Your task to perform on an android device: open a new tab in the chrome app Image 0: 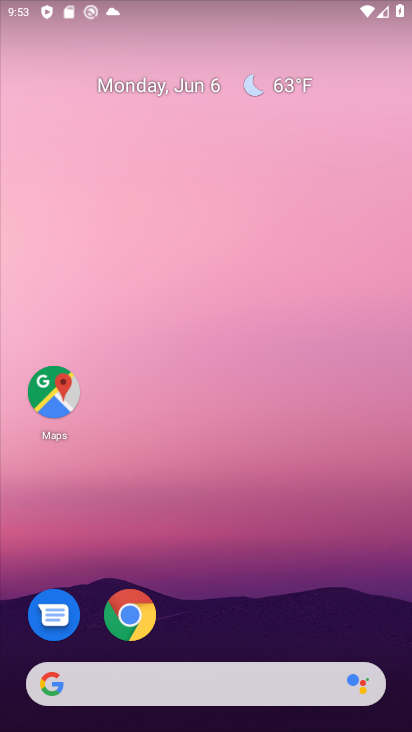
Step 0: click (129, 609)
Your task to perform on an android device: open a new tab in the chrome app Image 1: 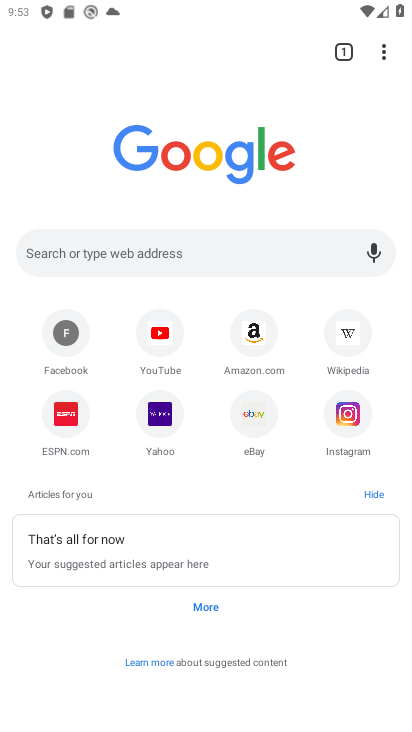
Step 1: click (381, 46)
Your task to perform on an android device: open a new tab in the chrome app Image 2: 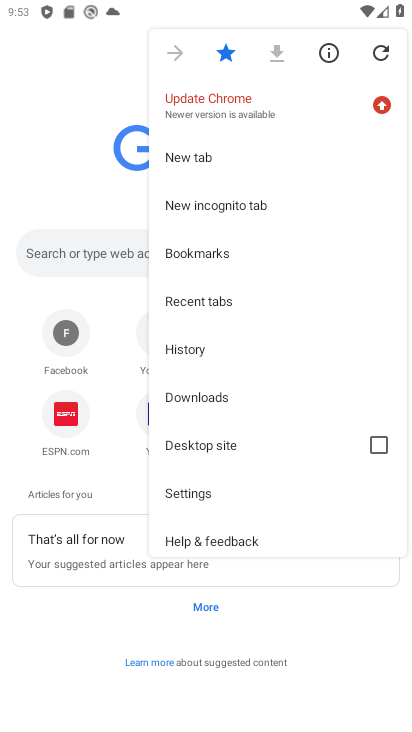
Step 2: click (217, 156)
Your task to perform on an android device: open a new tab in the chrome app Image 3: 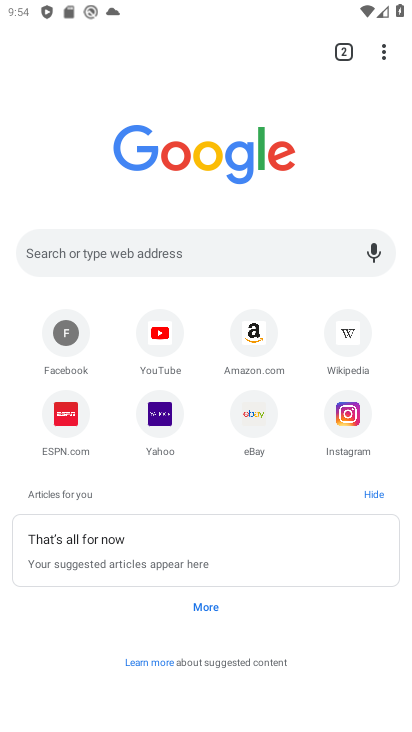
Step 3: task complete